Your task to perform on an android device: Turn off the flashlight Image 0: 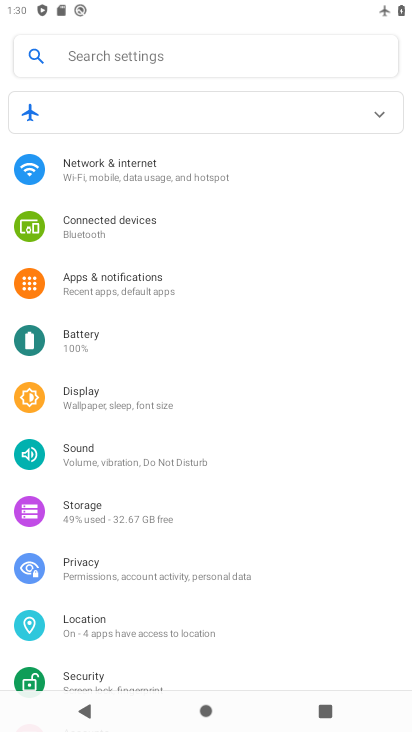
Step 0: press home button
Your task to perform on an android device: Turn off the flashlight Image 1: 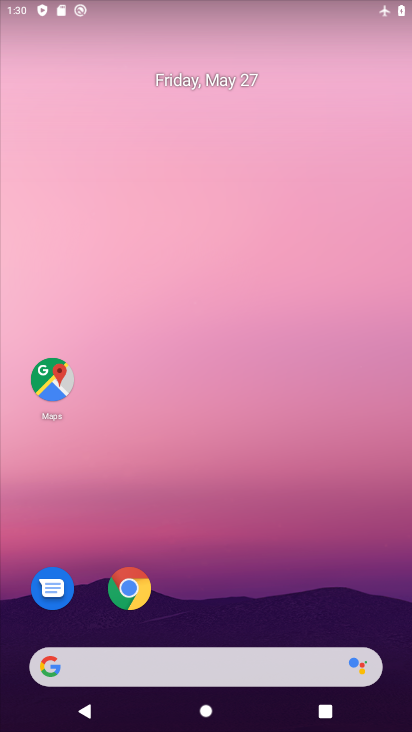
Step 1: drag from (235, 31) to (225, 638)
Your task to perform on an android device: Turn off the flashlight Image 2: 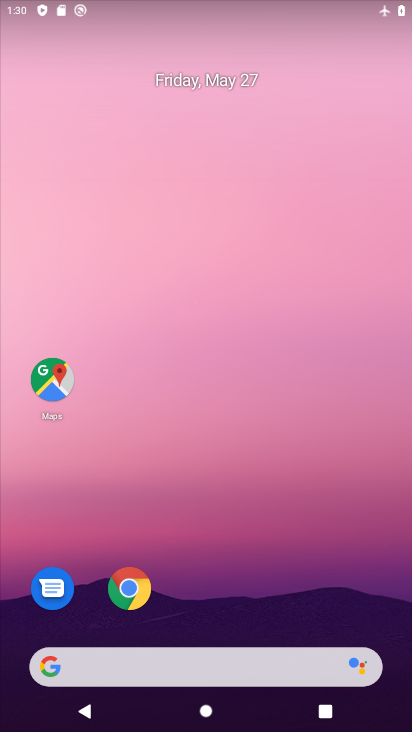
Step 2: drag from (288, 29) to (276, 592)
Your task to perform on an android device: Turn off the flashlight Image 3: 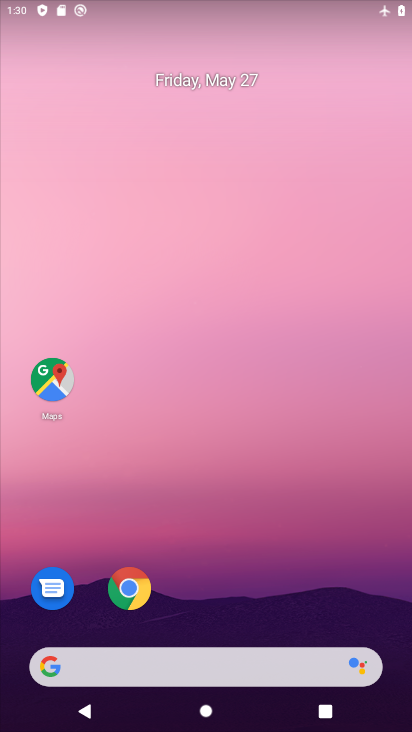
Step 3: drag from (288, 24) to (279, 655)
Your task to perform on an android device: Turn off the flashlight Image 4: 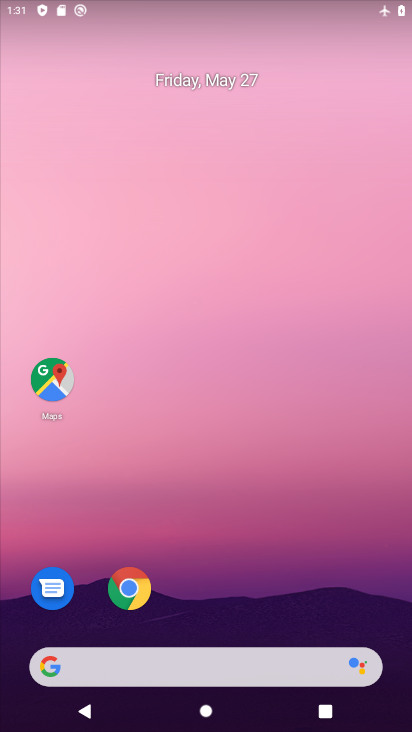
Step 4: drag from (246, 14) to (272, 377)
Your task to perform on an android device: Turn off the flashlight Image 5: 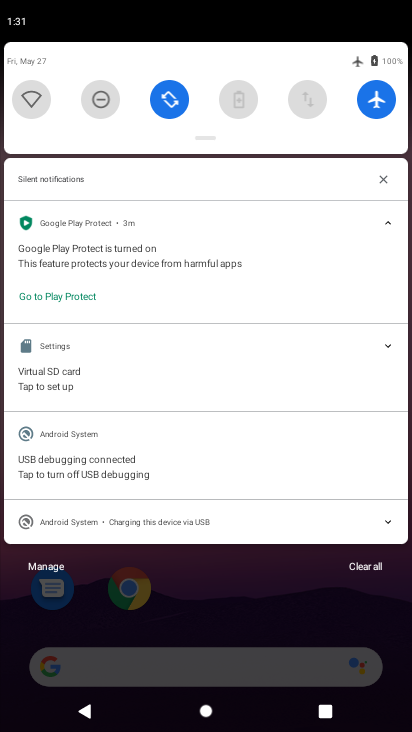
Step 5: drag from (201, 138) to (186, 499)
Your task to perform on an android device: Turn off the flashlight Image 6: 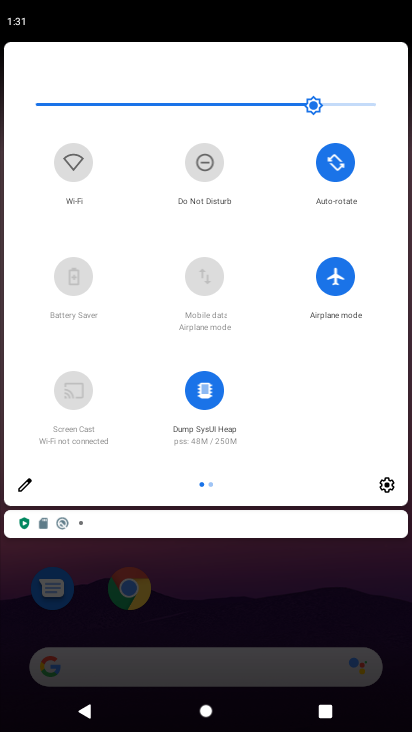
Step 6: click (21, 484)
Your task to perform on an android device: Turn off the flashlight Image 7: 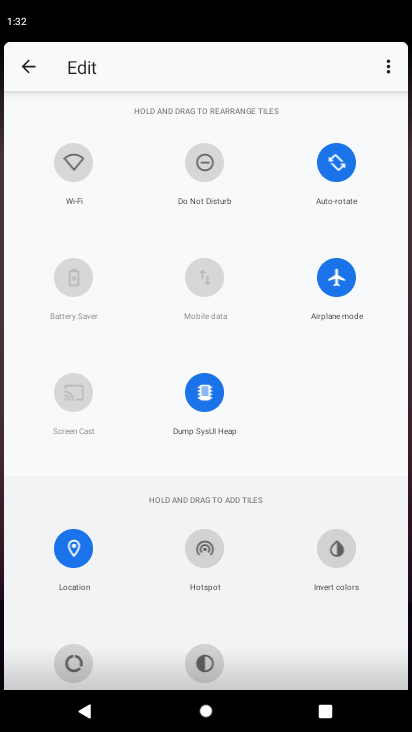
Step 7: task complete